Your task to perform on an android device: Open Google Chrome Image 0: 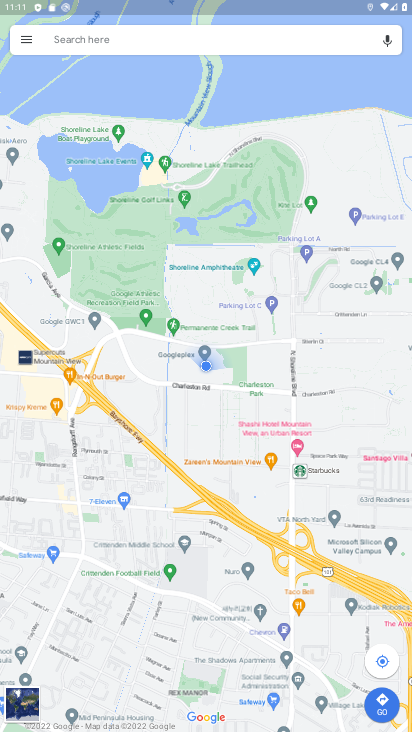
Step 0: press home button
Your task to perform on an android device: Open Google Chrome Image 1: 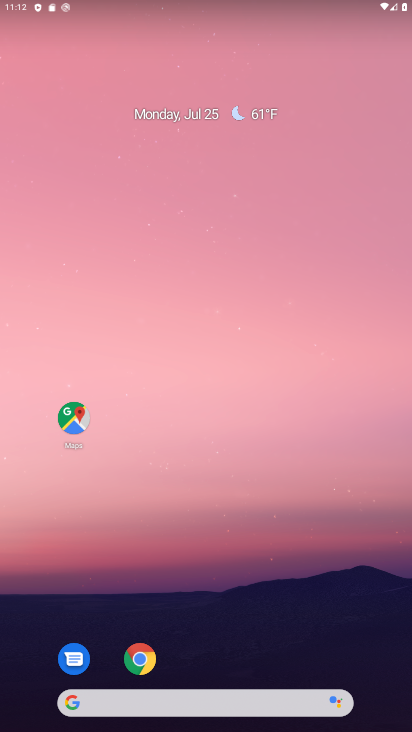
Step 1: drag from (206, 576) to (175, 196)
Your task to perform on an android device: Open Google Chrome Image 2: 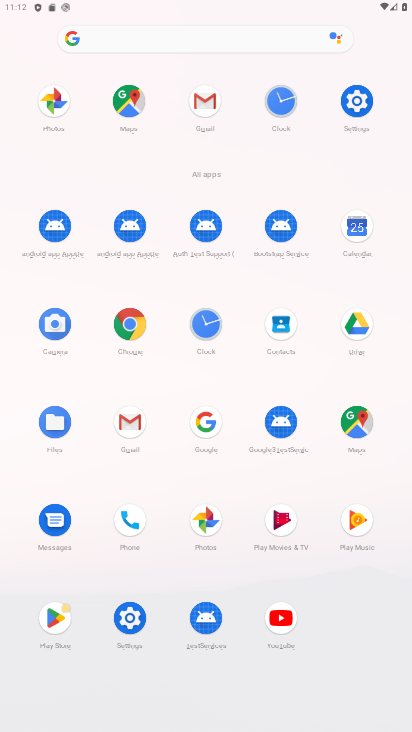
Step 2: click (135, 327)
Your task to perform on an android device: Open Google Chrome Image 3: 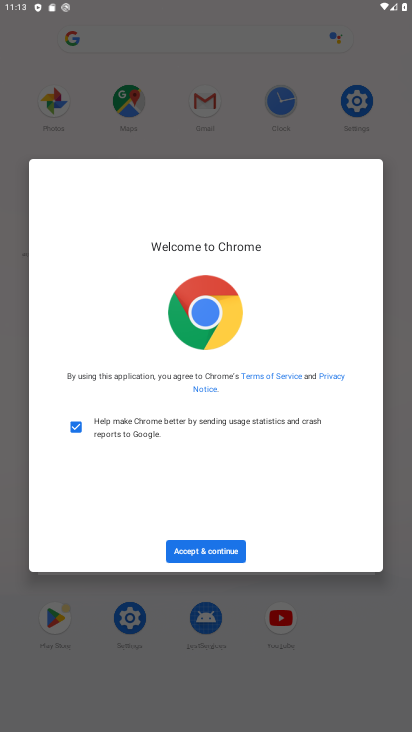
Step 3: click (199, 553)
Your task to perform on an android device: Open Google Chrome Image 4: 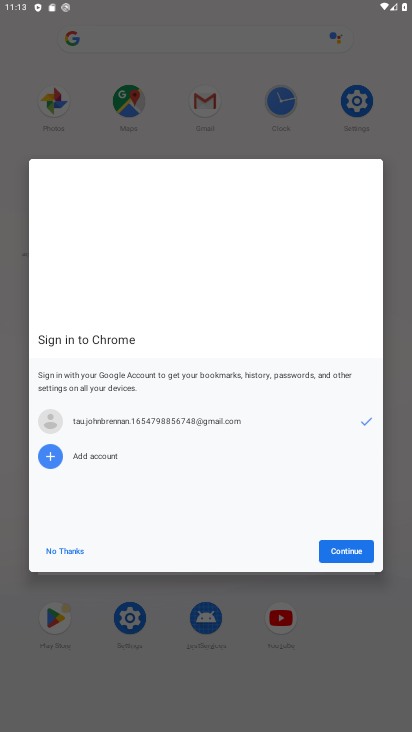
Step 4: click (346, 557)
Your task to perform on an android device: Open Google Chrome Image 5: 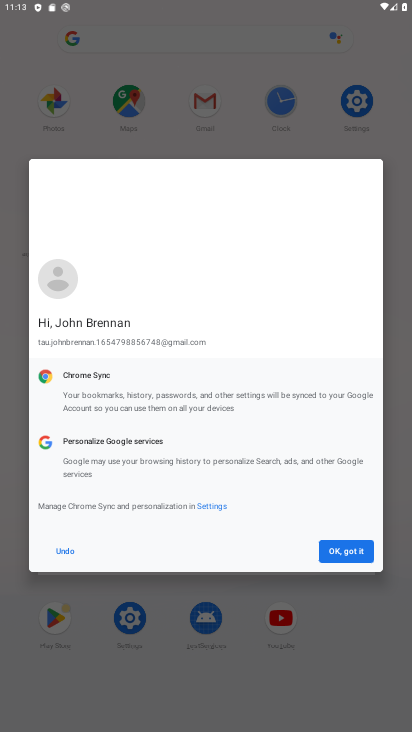
Step 5: click (349, 555)
Your task to perform on an android device: Open Google Chrome Image 6: 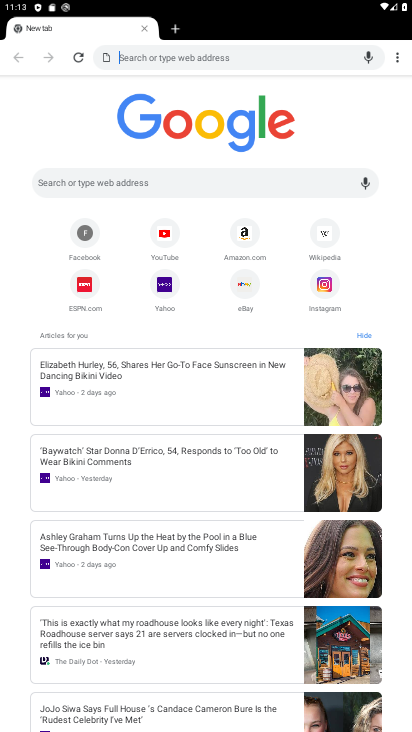
Step 6: task complete